Your task to perform on an android device: make emails show in primary in the gmail app Image 0: 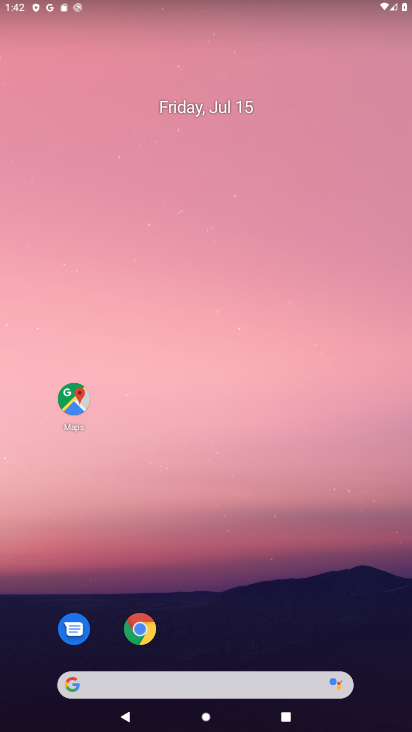
Step 0: drag from (209, 583) to (213, 258)
Your task to perform on an android device: make emails show in primary in the gmail app Image 1: 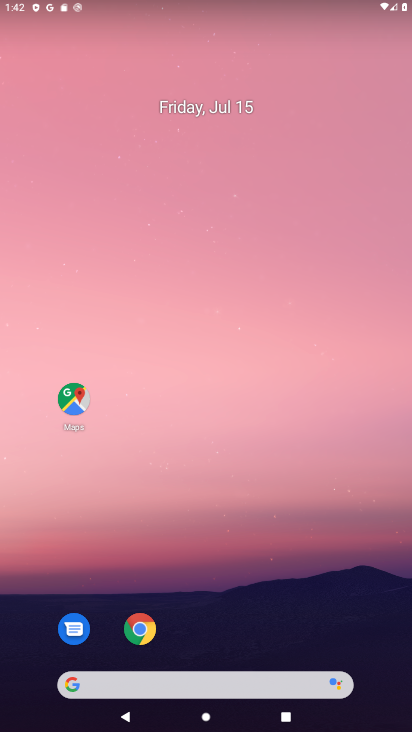
Step 1: drag from (182, 610) to (229, 15)
Your task to perform on an android device: make emails show in primary in the gmail app Image 2: 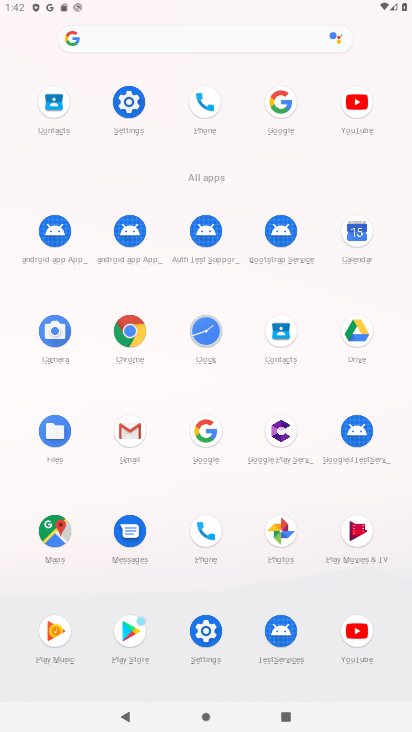
Step 2: click (123, 447)
Your task to perform on an android device: make emails show in primary in the gmail app Image 3: 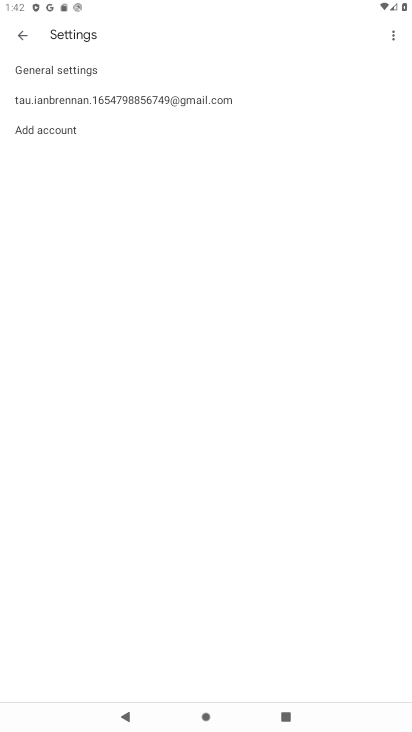
Step 3: click (91, 104)
Your task to perform on an android device: make emails show in primary in the gmail app Image 4: 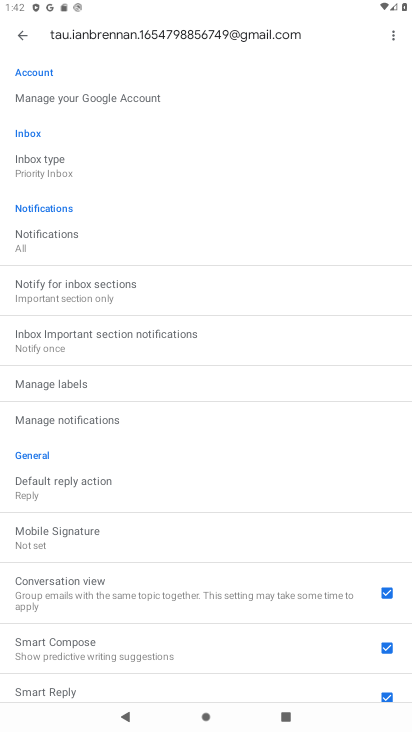
Step 4: task complete